Your task to perform on an android device: add a contact in the contacts app Image 0: 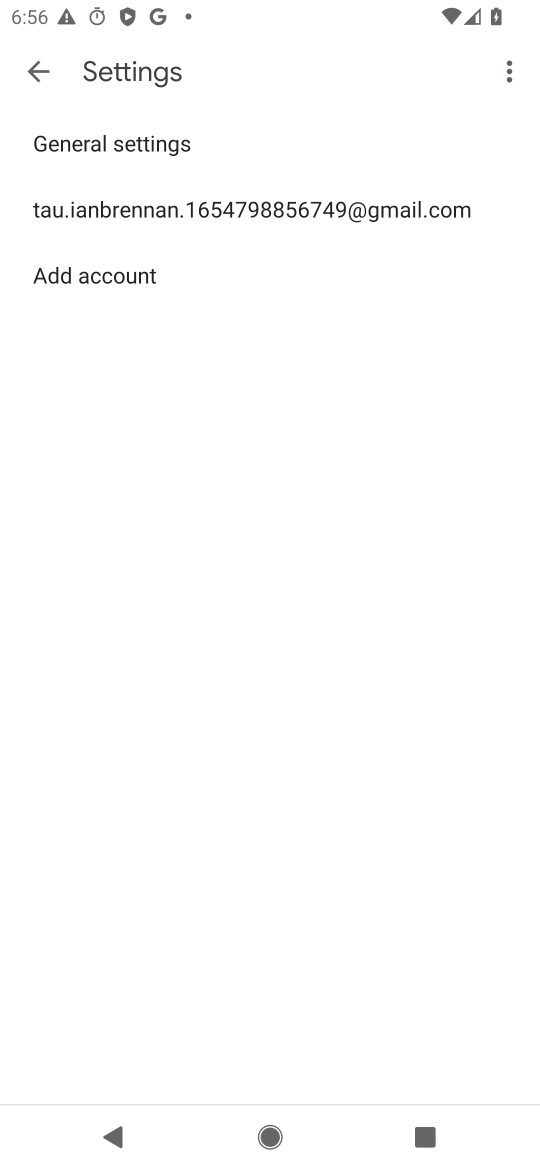
Step 0: press home button
Your task to perform on an android device: add a contact in the contacts app Image 1: 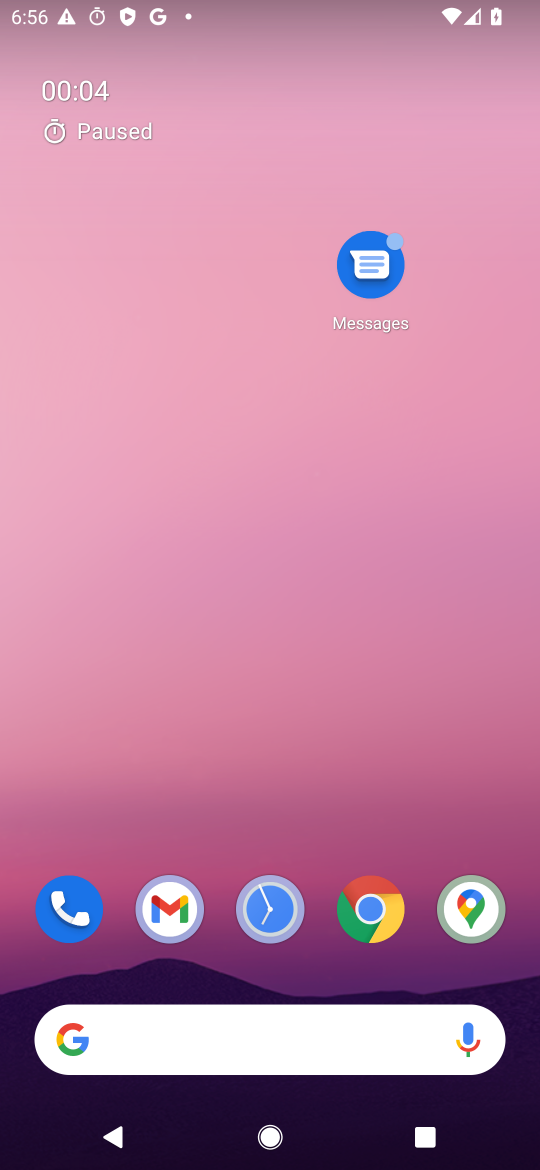
Step 1: drag from (312, 894) to (377, 70)
Your task to perform on an android device: add a contact in the contacts app Image 2: 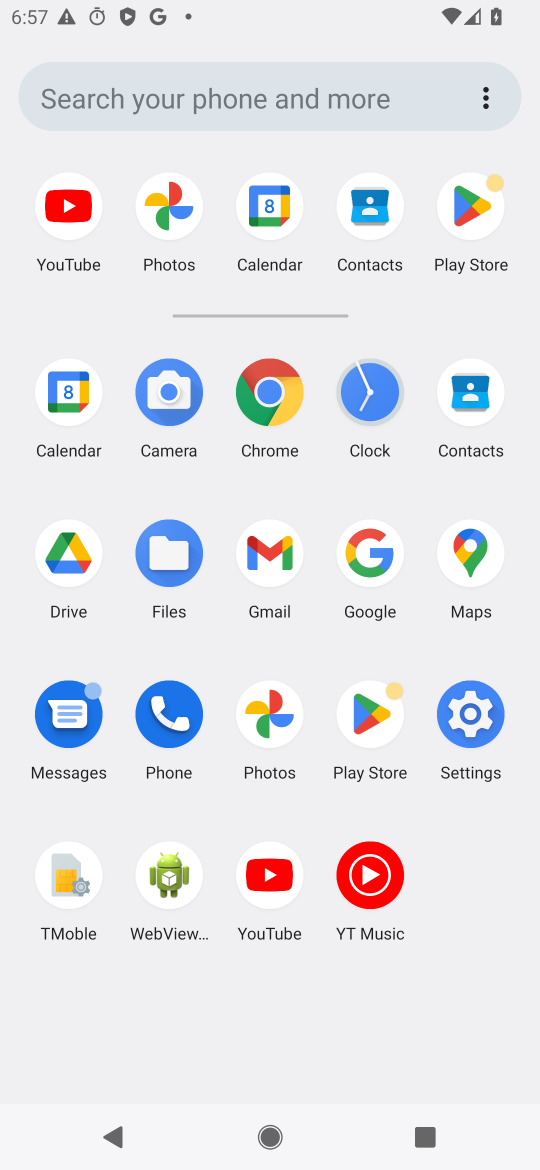
Step 2: click (463, 388)
Your task to perform on an android device: add a contact in the contacts app Image 3: 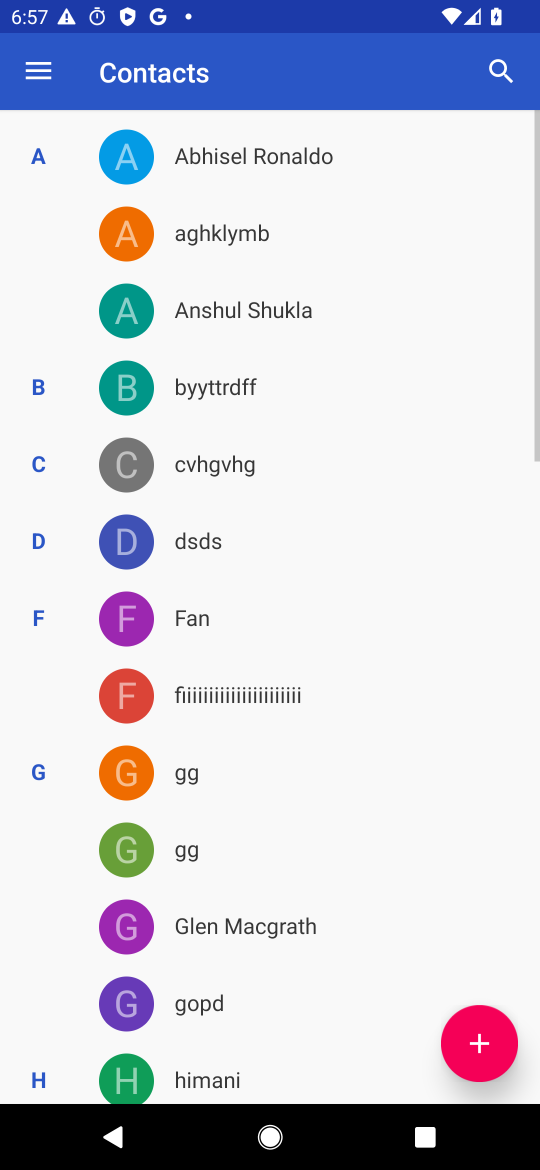
Step 3: click (474, 1050)
Your task to perform on an android device: add a contact in the contacts app Image 4: 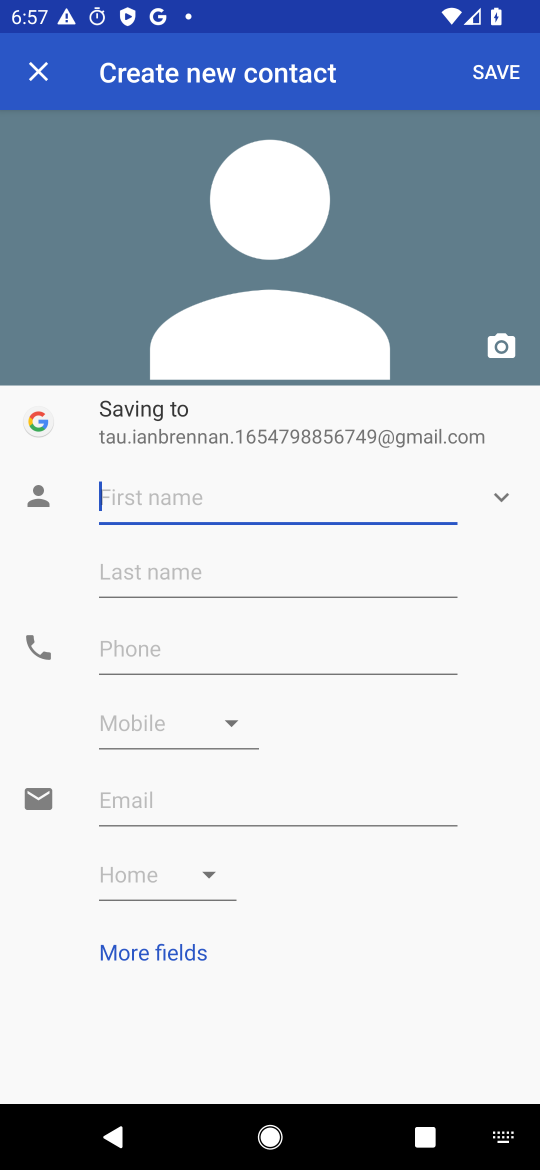
Step 4: type "apogtyhg"
Your task to perform on an android device: add a contact in the contacts app Image 5: 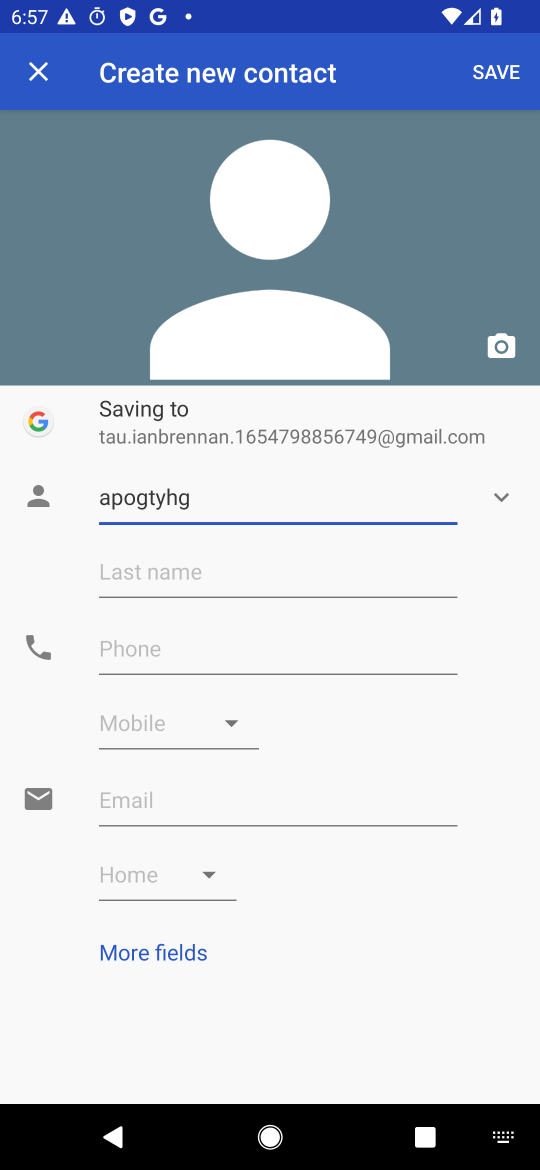
Step 5: click (145, 658)
Your task to perform on an android device: add a contact in the contacts app Image 6: 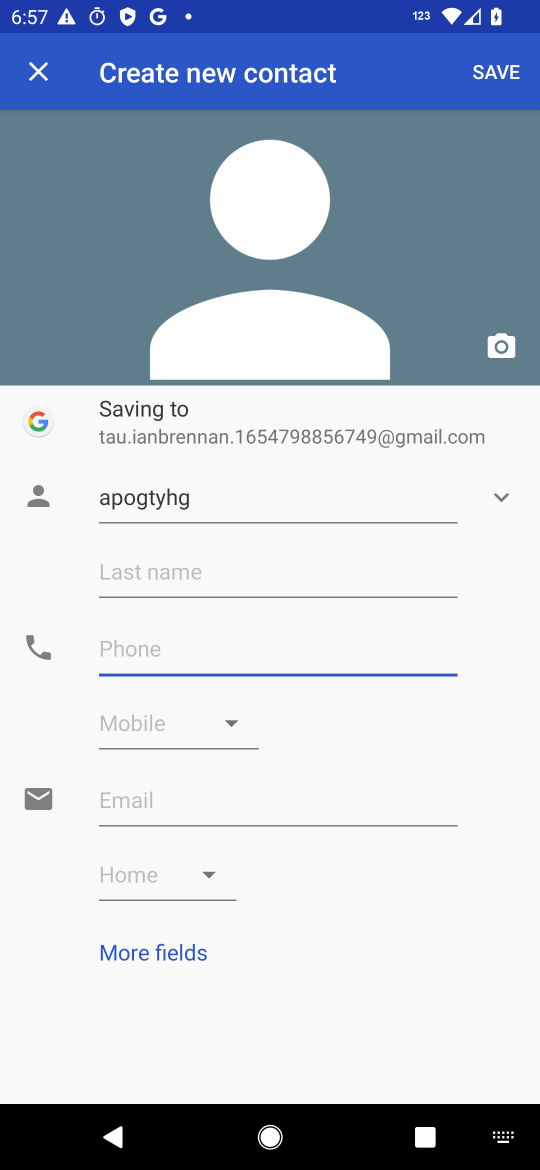
Step 6: type "18556778"
Your task to perform on an android device: add a contact in the contacts app Image 7: 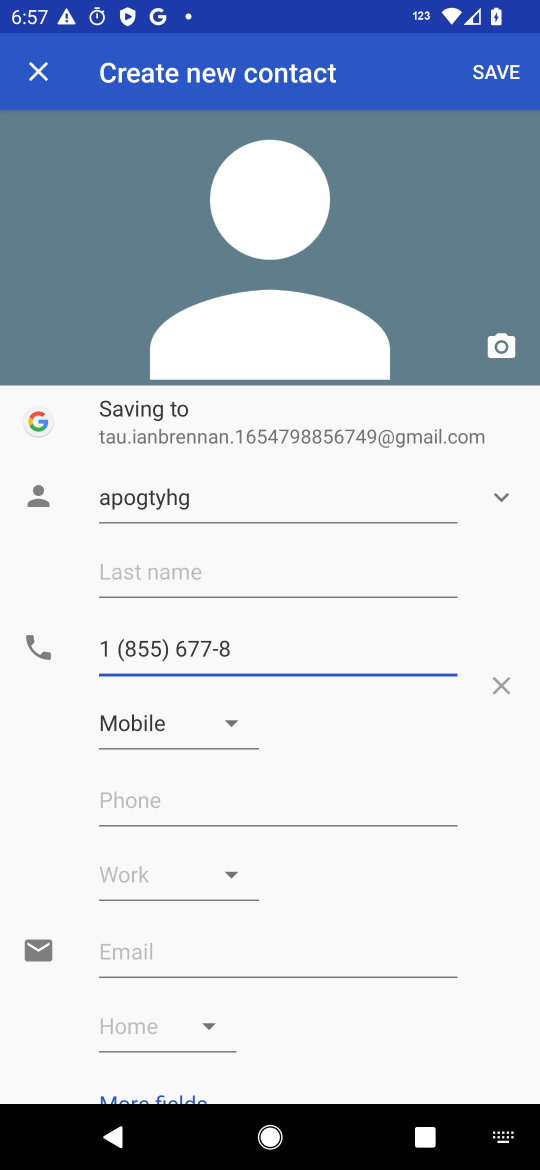
Step 7: click (499, 64)
Your task to perform on an android device: add a contact in the contacts app Image 8: 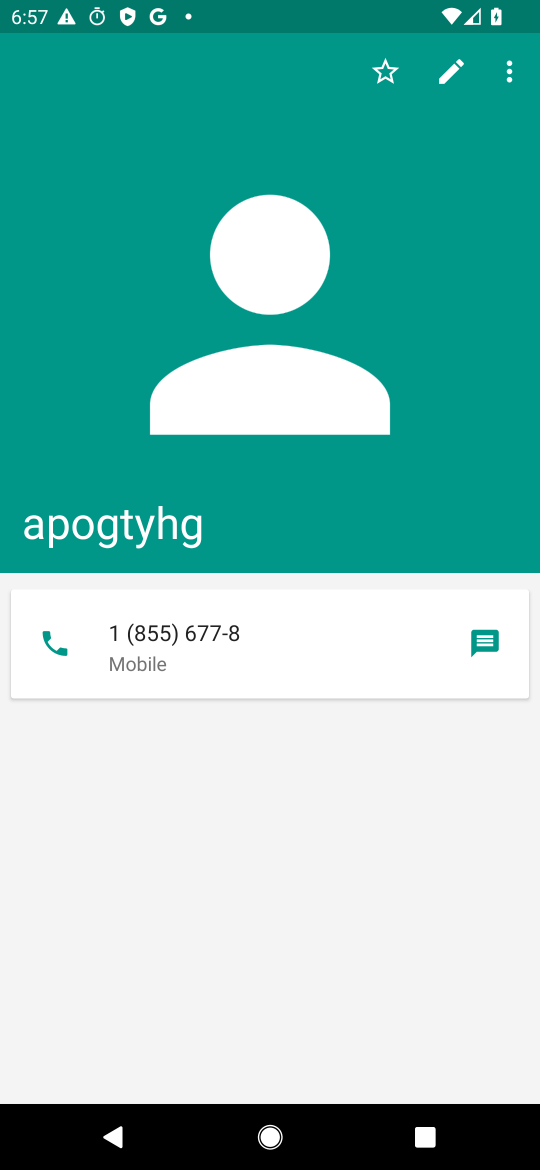
Step 8: task complete